Your task to perform on an android device: star an email in the gmail app Image 0: 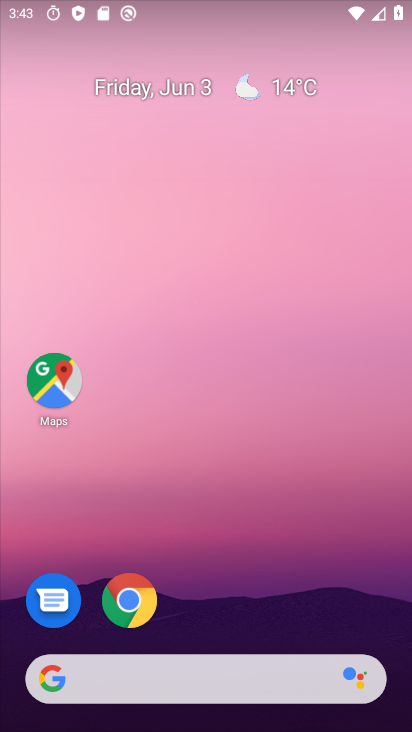
Step 0: drag from (251, 207) to (0, 217)
Your task to perform on an android device: star an email in the gmail app Image 1: 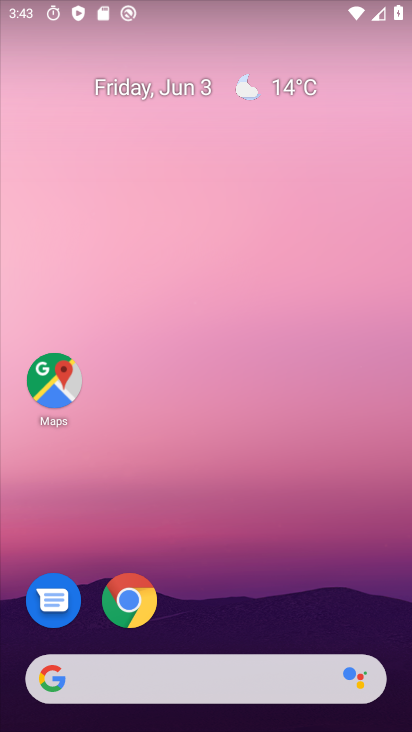
Step 1: drag from (239, 596) to (192, 6)
Your task to perform on an android device: star an email in the gmail app Image 2: 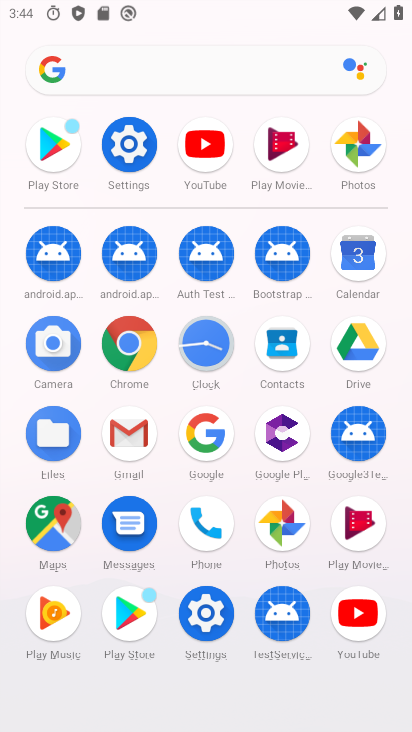
Step 2: drag from (19, 531) to (27, 193)
Your task to perform on an android device: star an email in the gmail app Image 3: 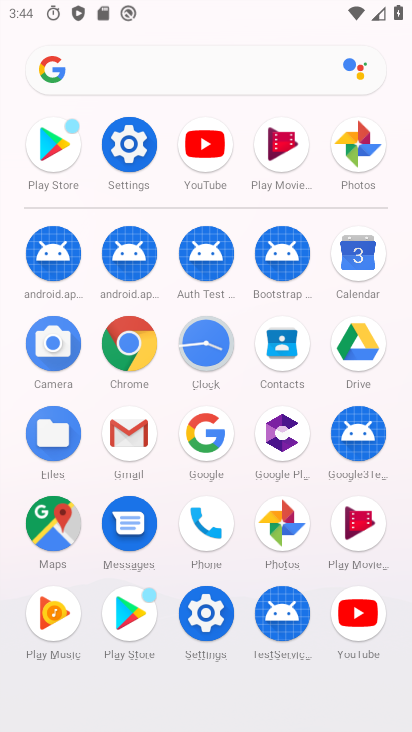
Step 3: click (119, 430)
Your task to perform on an android device: star an email in the gmail app Image 4: 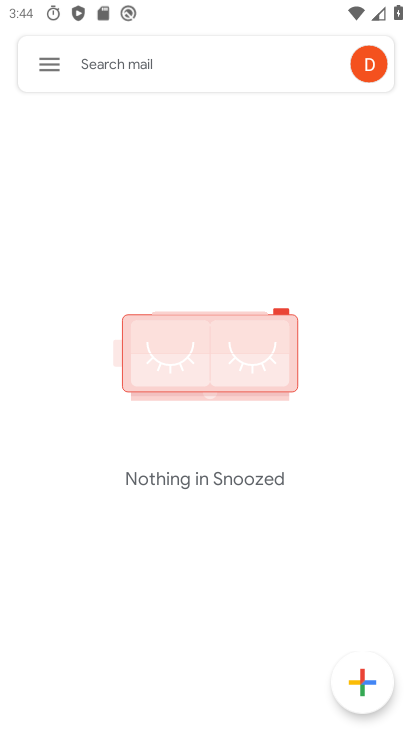
Step 4: click (48, 50)
Your task to perform on an android device: star an email in the gmail app Image 5: 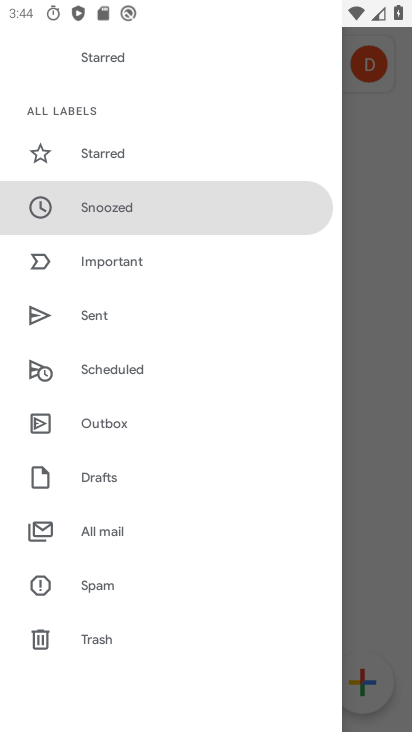
Step 5: click (106, 147)
Your task to perform on an android device: star an email in the gmail app Image 6: 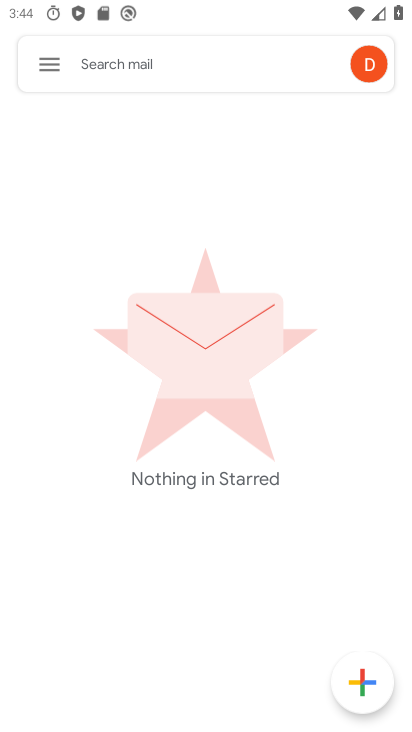
Step 6: task complete